Your task to perform on an android device: toggle show notifications on the lock screen Image 0: 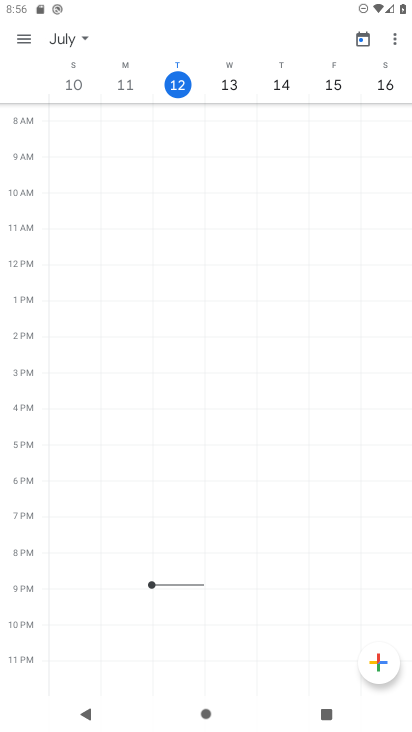
Step 0: press home button
Your task to perform on an android device: toggle show notifications on the lock screen Image 1: 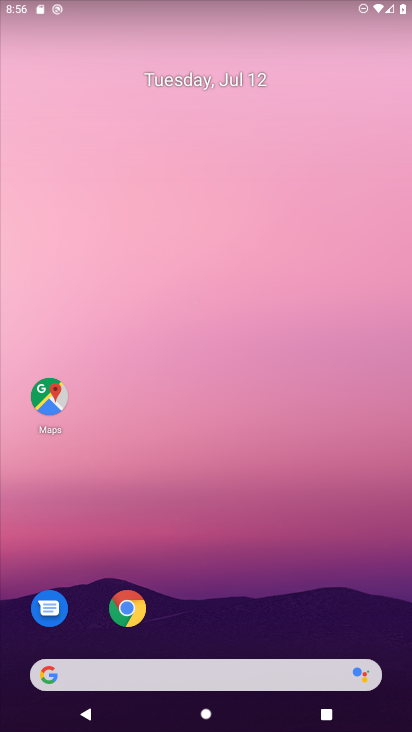
Step 1: drag from (197, 623) to (266, 34)
Your task to perform on an android device: toggle show notifications on the lock screen Image 2: 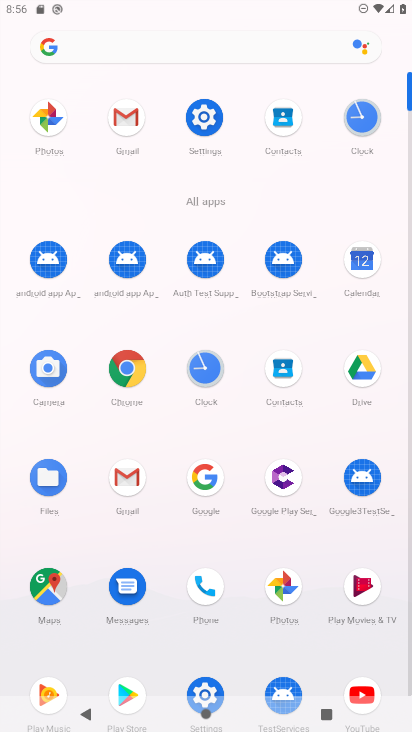
Step 2: click (222, 114)
Your task to perform on an android device: toggle show notifications on the lock screen Image 3: 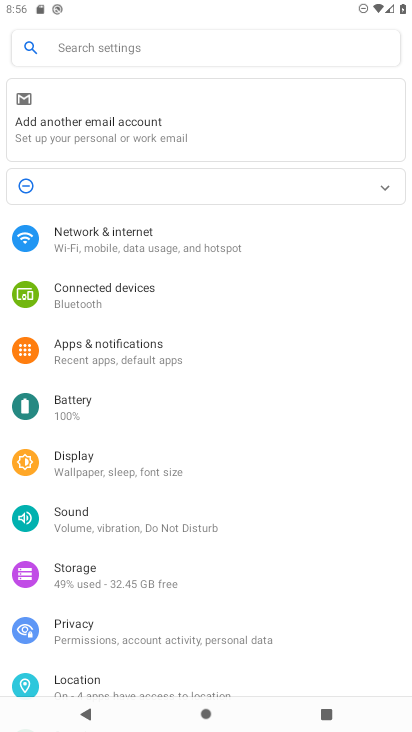
Step 3: click (87, 347)
Your task to perform on an android device: toggle show notifications on the lock screen Image 4: 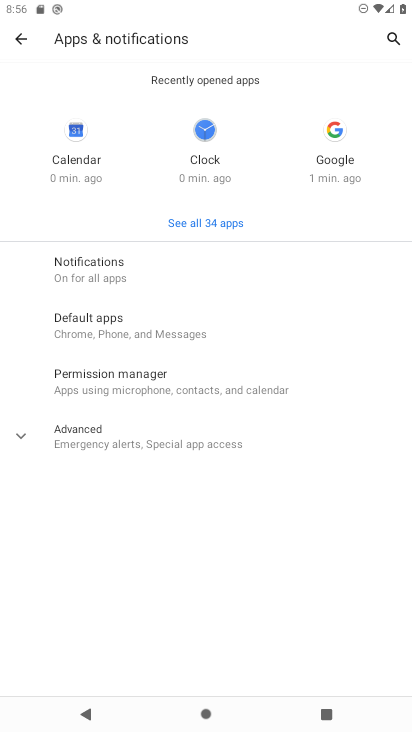
Step 4: click (188, 256)
Your task to perform on an android device: toggle show notifications on the lock screen Image 5: 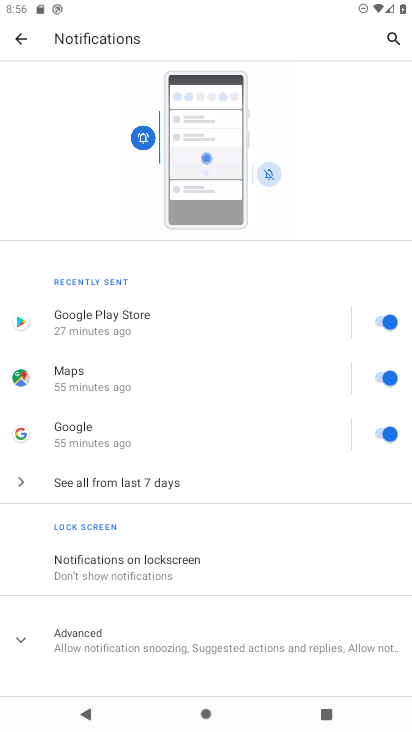
Step 5: click (148, 556)
Your task to perform on an android device: toggle show notifications on the lock screen Image 6: 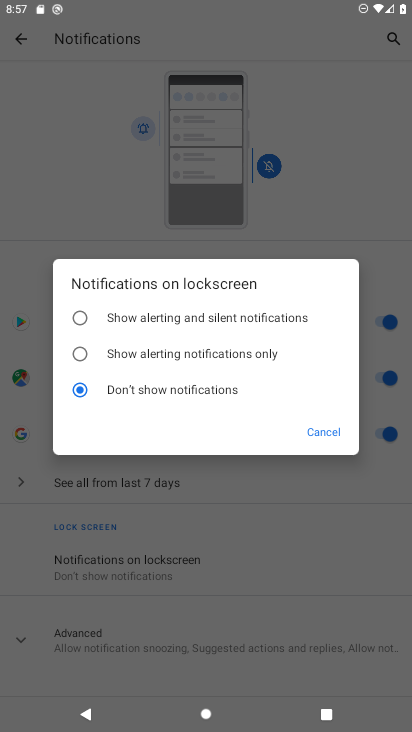
Step 6: click (180, 315)
Your task to perform on an android device: toggle show notifications on the lock screen Image 7: 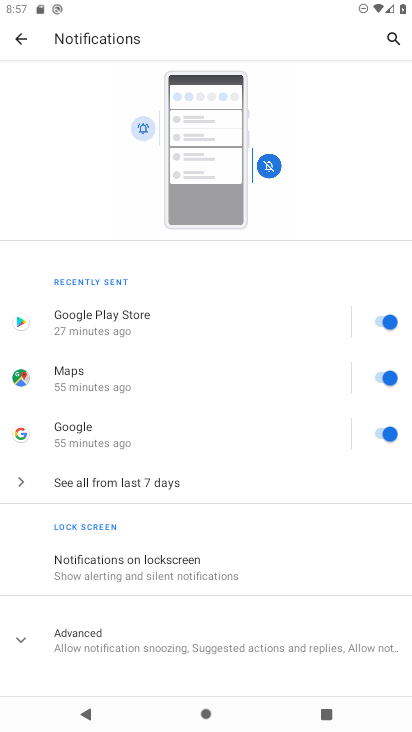
Step 7: task complete